Your task to perform on an android device: remove spam from my inbox in the gmail app Image 0: 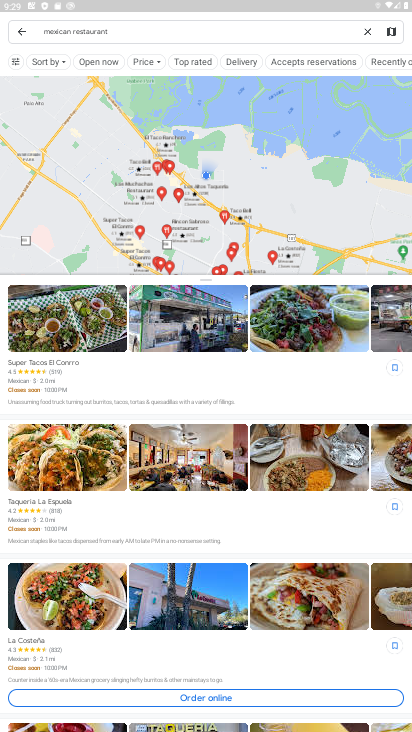
Step 0: press home button
Your task to perform on an android device: remove spam from my inbox in the gmail app Image 1: 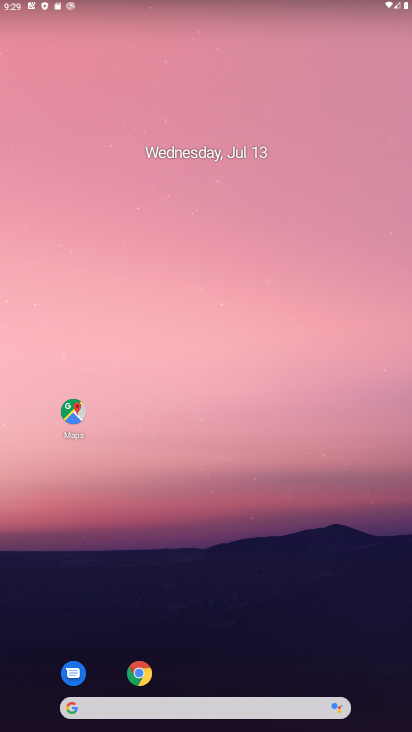
Step 1: drag from (210, 661) to (279, 33)
Your task to perform on an android device: remove spam from my inbox in the gmail app Image 2: 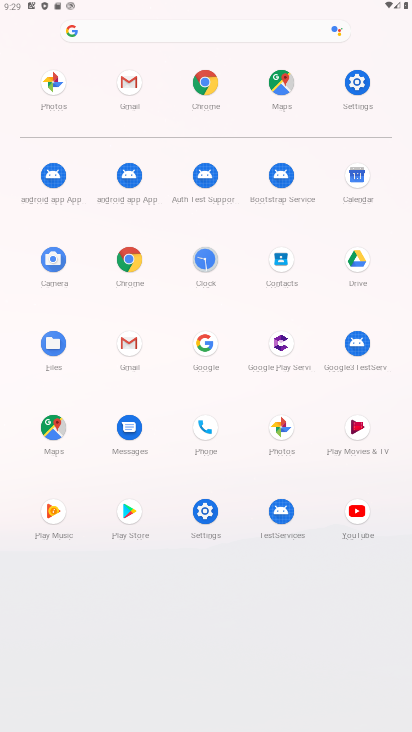
Step 2: click (128, 87)
Your task to perform on an android device: remove spam from my inbox in the gmail app Image 3: 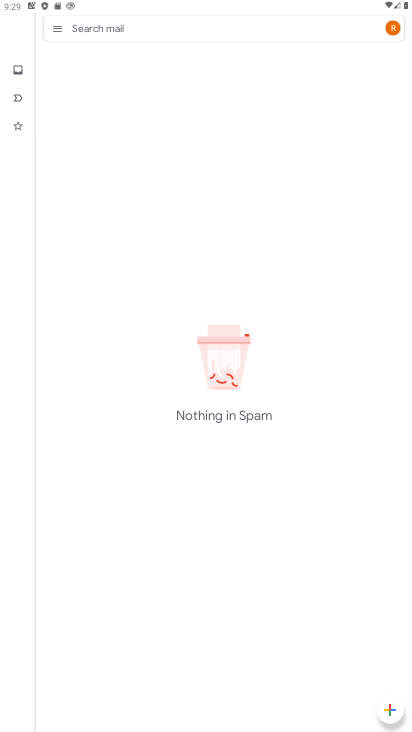
Step 3: task complete